Your task to perform on an android device: See recent photos Image 0: 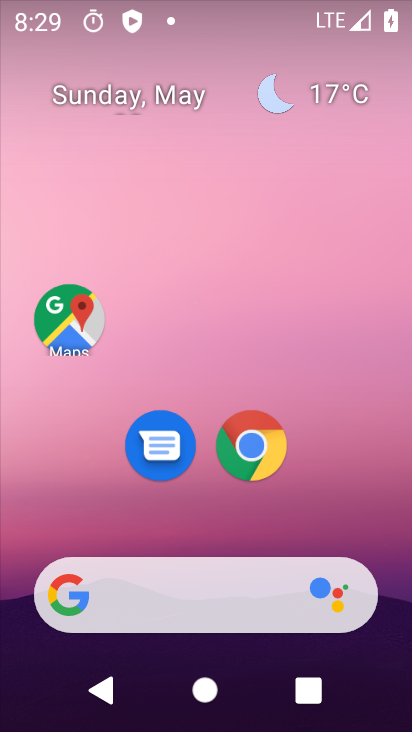
Step 0: drag from (208, 539) to (236, 188)
Your task to perform on an android device: See recent photos Image 1: 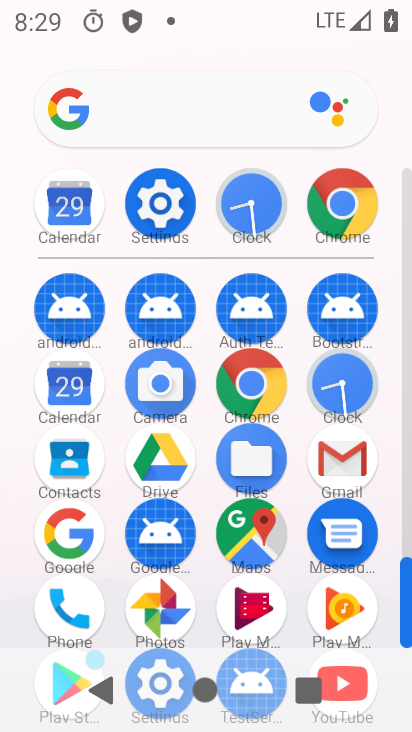
Step 1: click (153, 609)
Your task to perform on an android device: See recent photos Image 2: 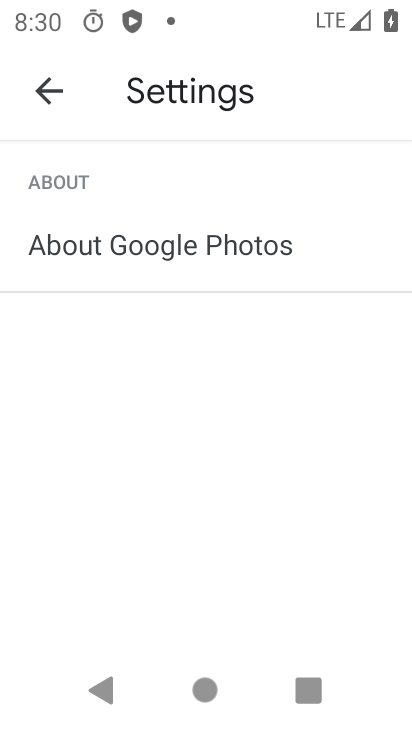
Step 2: drag from (184, 603) to (357, 254)
Your task to perform on an android device: See recent photos Image 3: 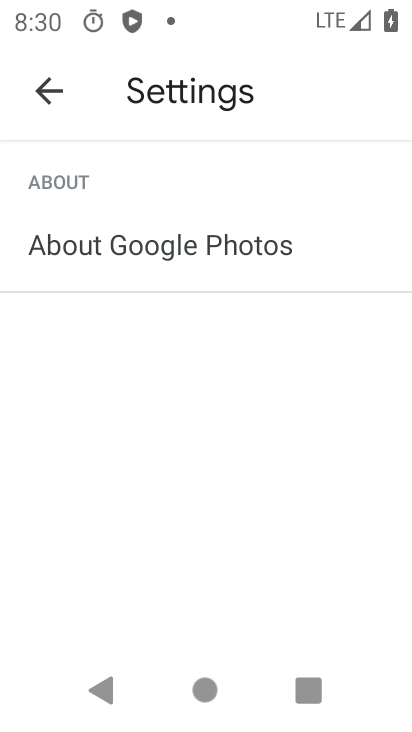
Step 3: click (42, 90)
Your task to perform on an android device: See recent photos Image 4: 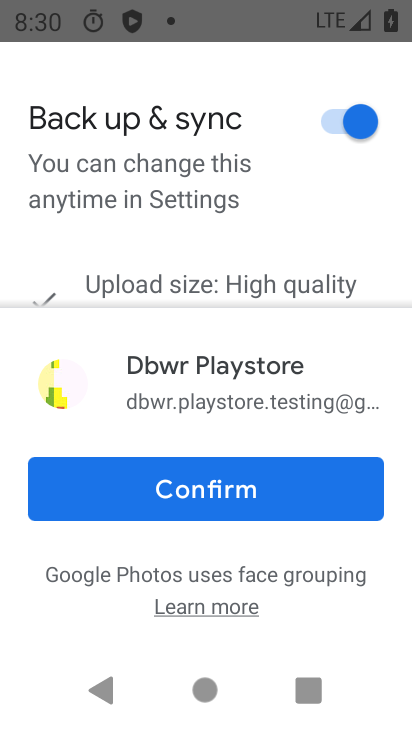
Step 4: click (261, 493)
Your task to perform on an android device: See recent photos Image 5: 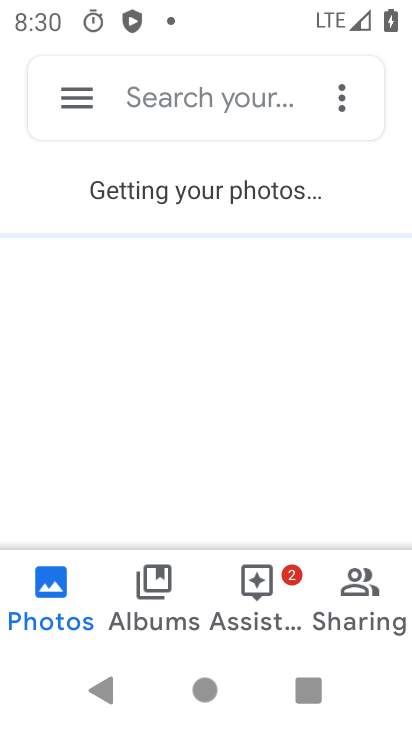
Step 5: drag from (170, 454) to (322, 15)
Your task to perform on an android device: See recent photos Image 6: 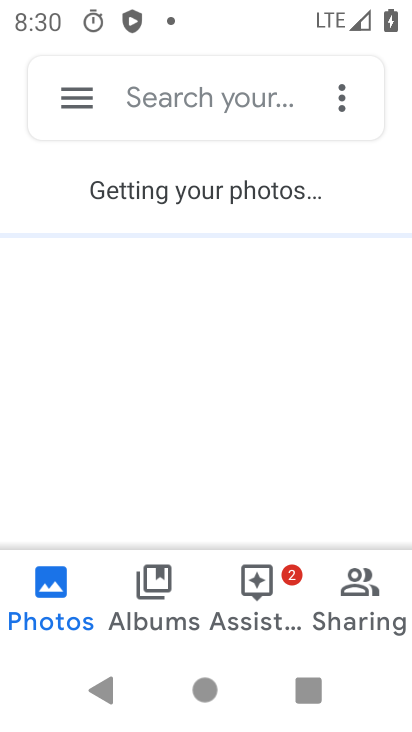
Step 6: click (175, 561)
Your task to perform on an android device: See recent photos Image 7: 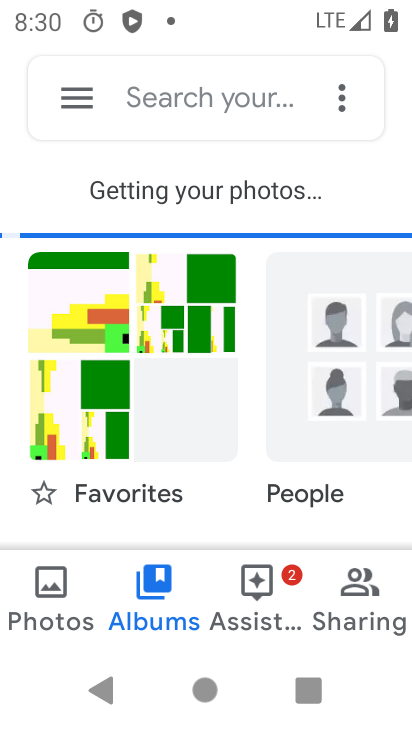
Step 7: click (128, 292)
Your task to perform on an android device: See recent photos Image 8: 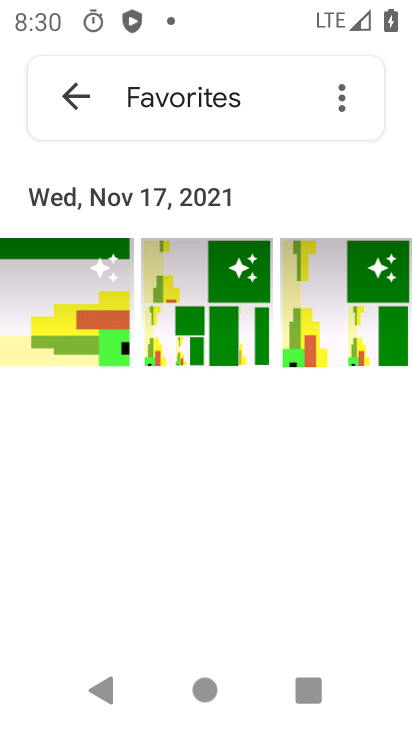
Step 8: click (94, 300)
Your task to perform on an android device: See recent photos Image 9: 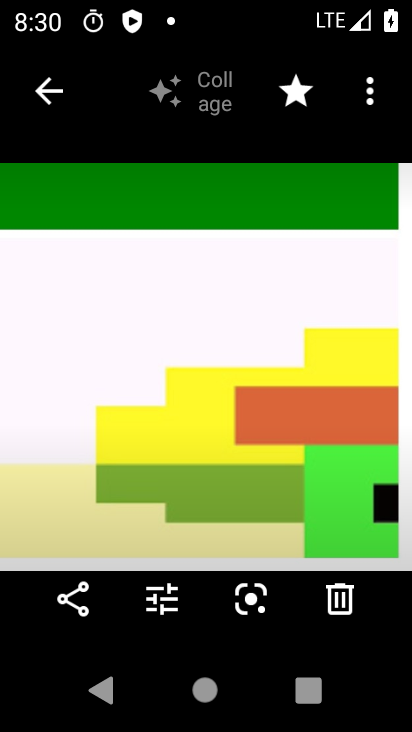
Step 9: task complete